Your task to perform on an android device: Open Chrome and go to the settings page Image 0: 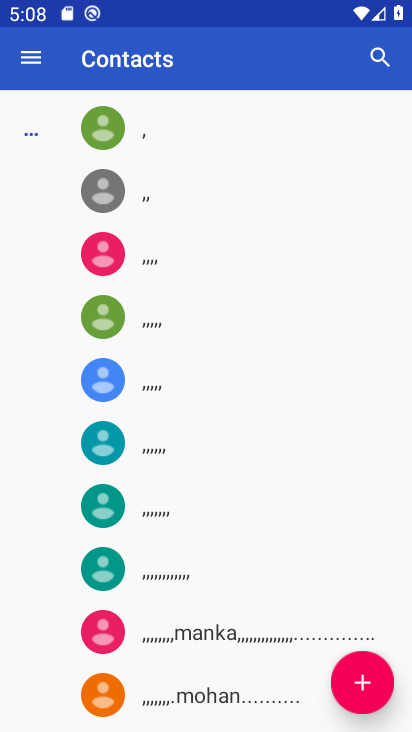
Step 0: drag from (269, 594) to (270, 359)
Your task to perform on an android device: Open Chrome and go to the settings page Image 1: 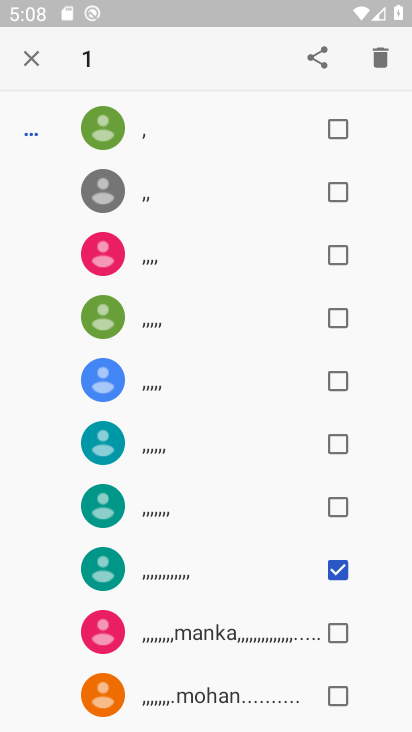
Step 1: press home button
Your task to perform on an android device: Open Chrome and go to the settings page Image 2: 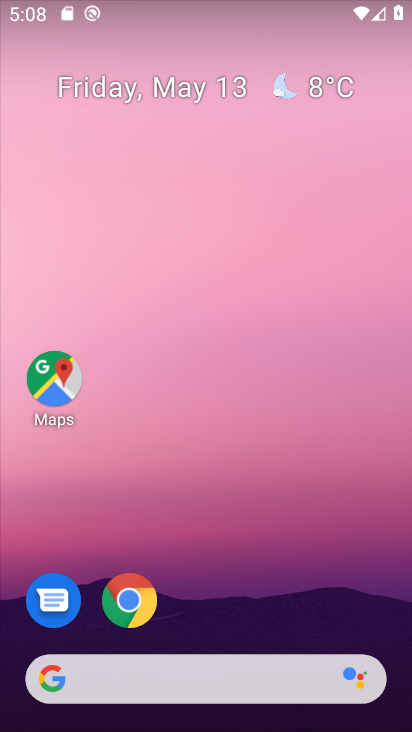
Step 2: click (119, 625)
Your task to perform on an android device: Open Chrome and go to the settings page Image 3: 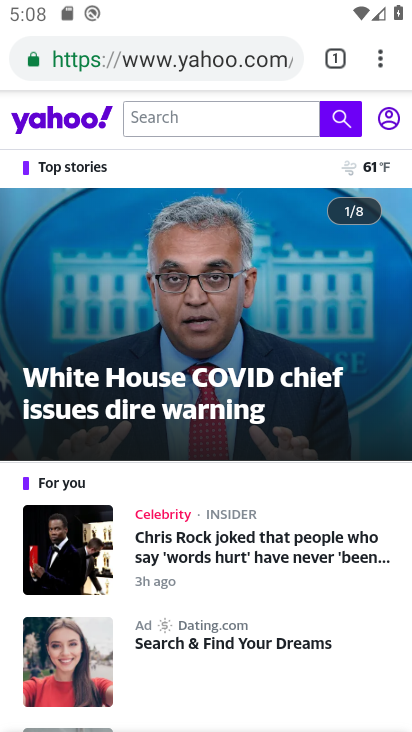
Step 3: click (392, 60)
Your task to perform on an android device: Open Chrome and go to the settings page Image 4: 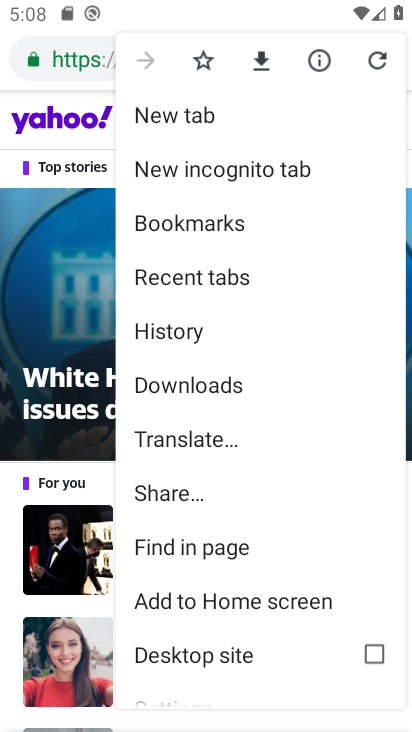
Step 4: drag from (212, 567) to (220, 416)
Your task to perform on an android device: Open Chrome and go to the settings page Image 5: 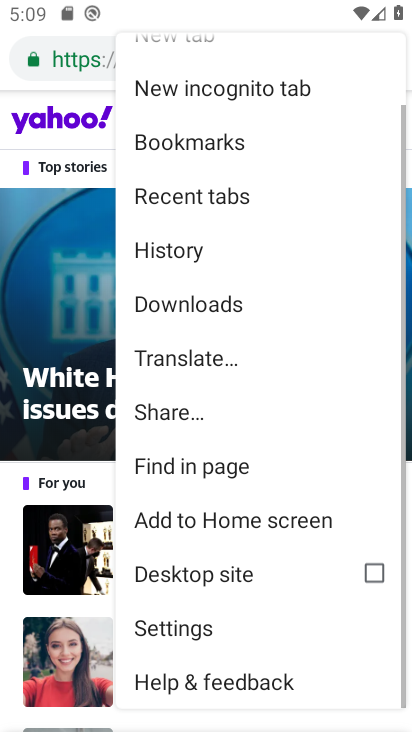
Step 5: click (209, 621)
Your task to perform on an android device: Open Chrome and go to the settings page Image 6: 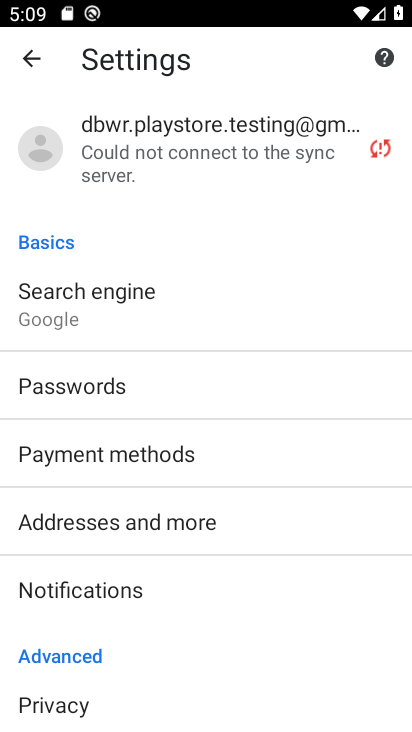
Step 6: task complete